Your task to perform on an android device: toggle location history Image 0: 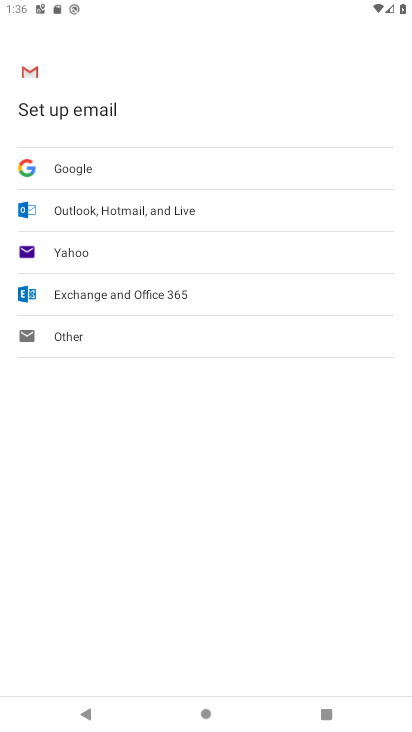
Step 0: press home button
Your task to perform on an android device: toggle location history Image 1: 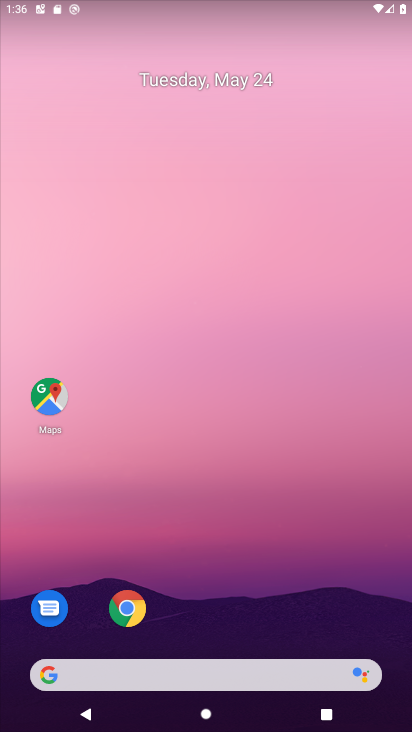
Step 1: drag from (353, 603) to (78, 6)
Your task to perform on an android device: toggle location history Image 2: 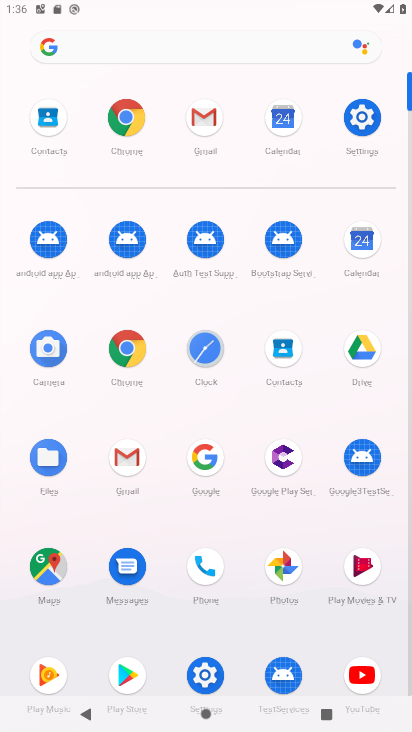
Step 2: click (361, 160)
Your task to perform on an android device: toggle location history Image 3: 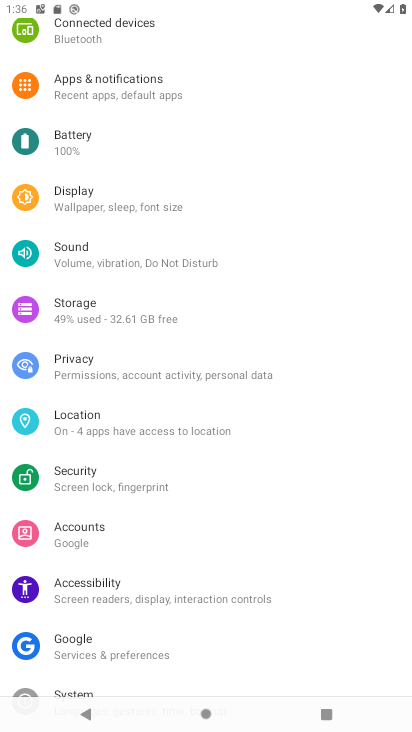
Step 3: click (157, 410)
Your task to perform on an android device: toggle location history Image 4: 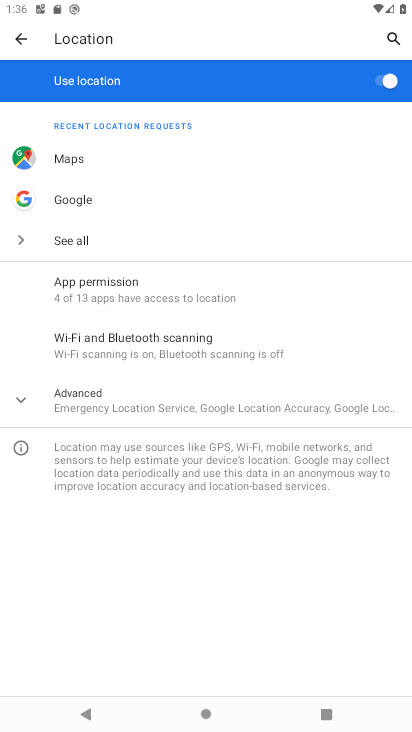
Step 4: click (259, 413)
Your task to perform on an android device: toggle location history Image 5: 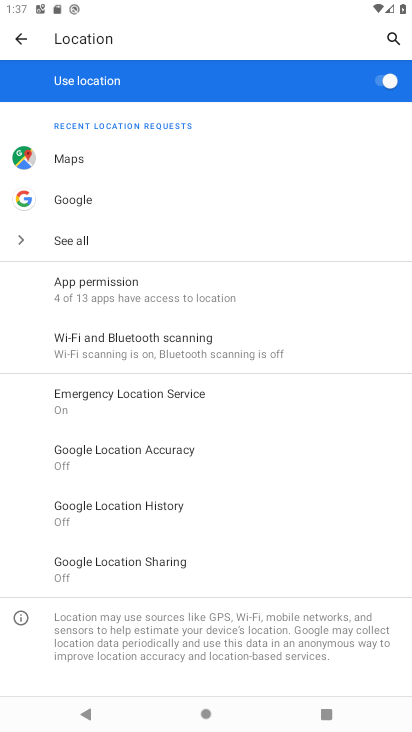
Step 5: click (222, 491)
Your task to perform on an android device: toggle location history Image 6: 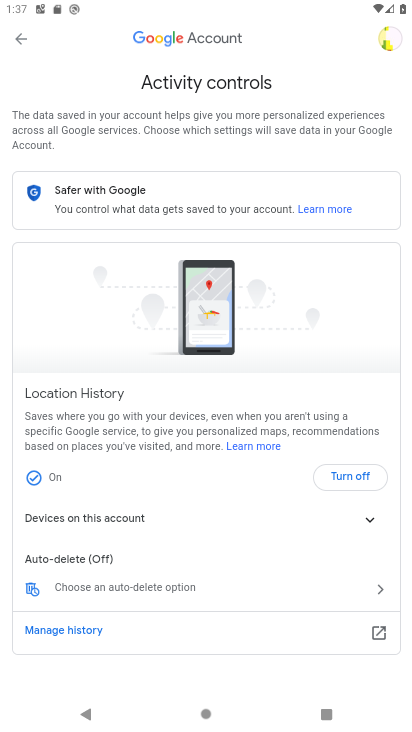
Step 6: click (348, 485)
Your task to perform on an android device: toggle location history Image 7: 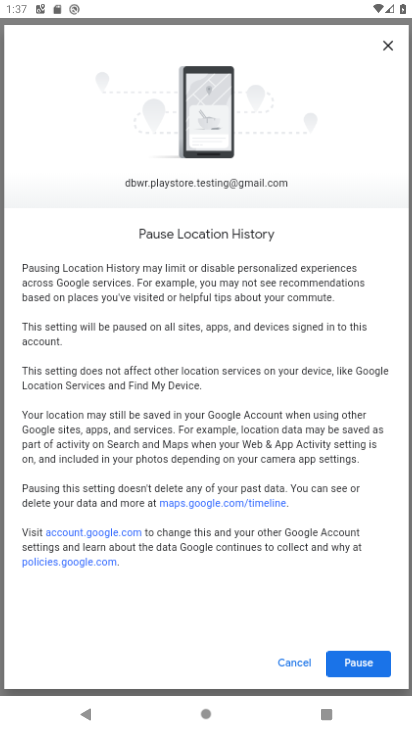
Step 7: task complete